Your task to perform on an android device: open a bookmark in the chrome app Image 0: 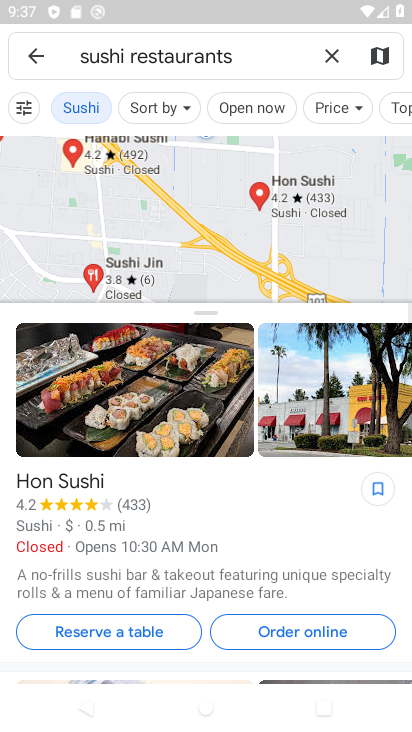
Step 0: press home button
Your task to perform on an android device: open a bookmark in the chrome app Image 1: 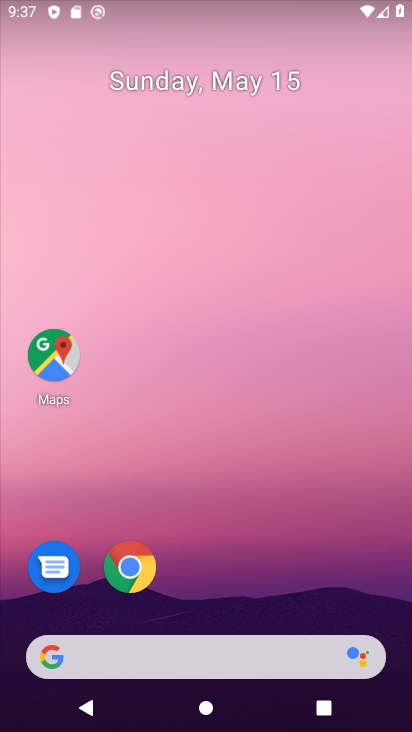
Step 1: click (120, 570)
Your task to perform on an android device: open a bookmark in the chrome app Image 2: 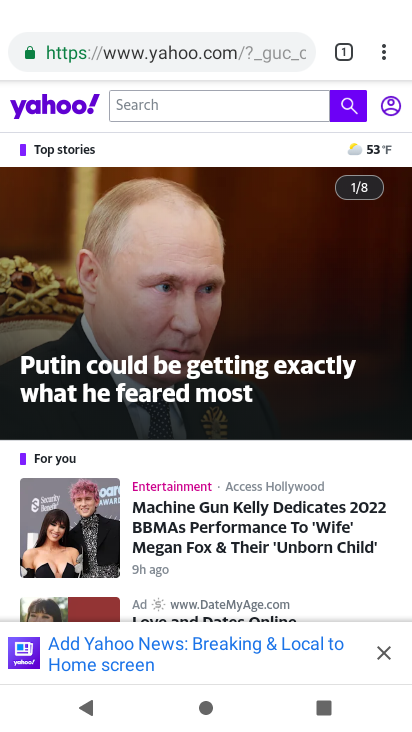
Step 2: click (379, 51)
Your task to perform on an android device: open a bookmark in the chrome app Image 3: 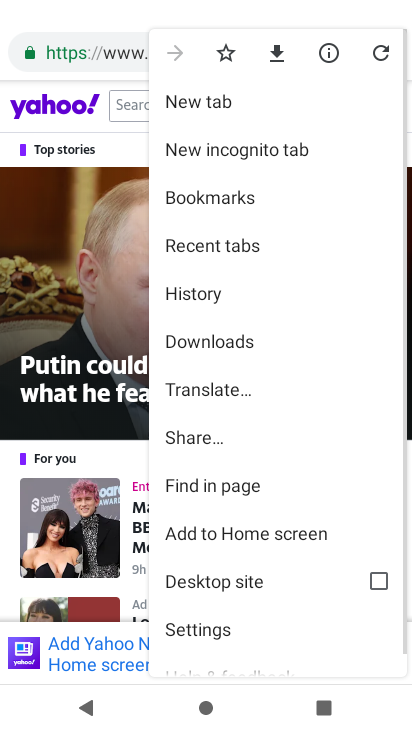
Step 3: click (221, 198)
Your task to perform on an android device: open a bookmark in the chrome app Image 4: 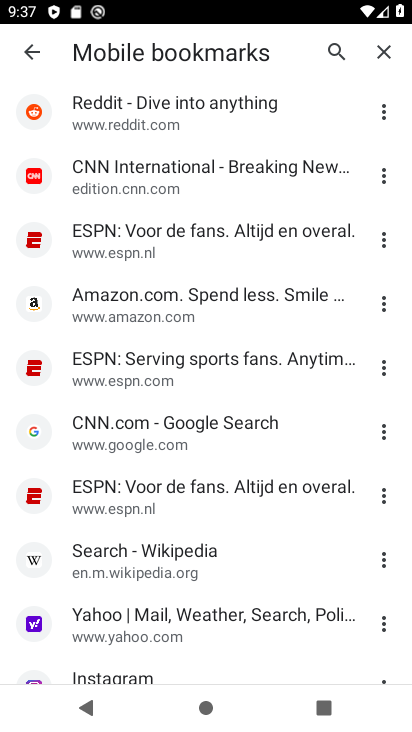
Step 4: click (172, 299)
Your task to perform on an android device: open a bookmark in the chrome app Image 5: 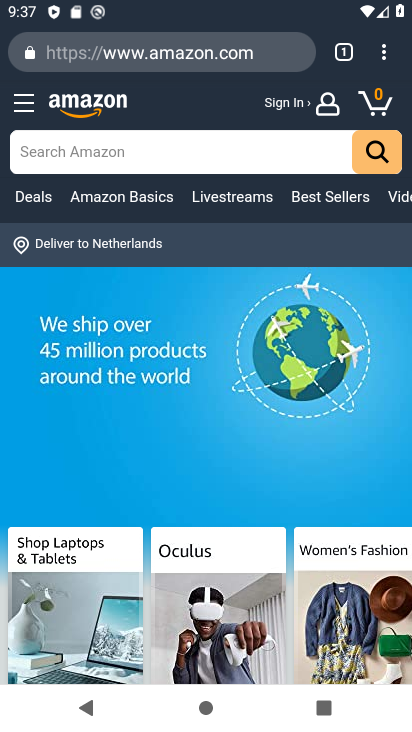
Step 5: task complete